Your task to perform on an android device: set default search engine in the chrome app Image 0: 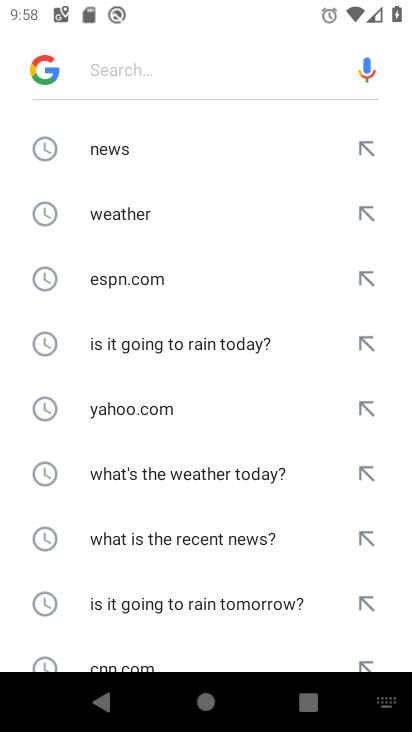
Step 0: press home button
Your task to perform on an android device: set default search engine in the chrome app Image 1: 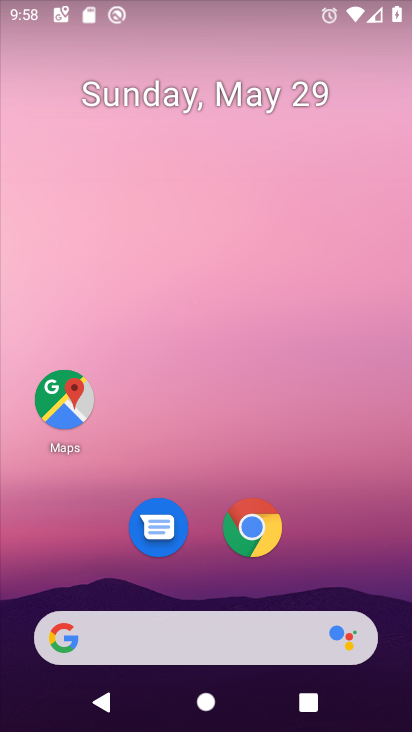
Step 1: click (241, 537)
Your task to perform on an android device: set default search engine in the chrome app Image 2: 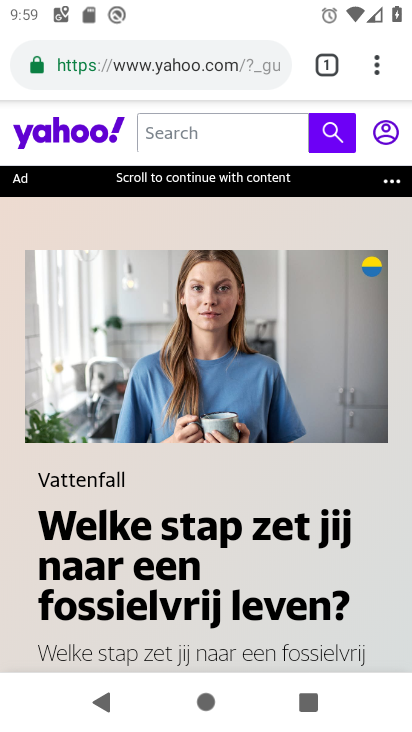
Step 2: click (376, 60)
Your task to perform on an android device: set default search engine in the chrome app Image 3: 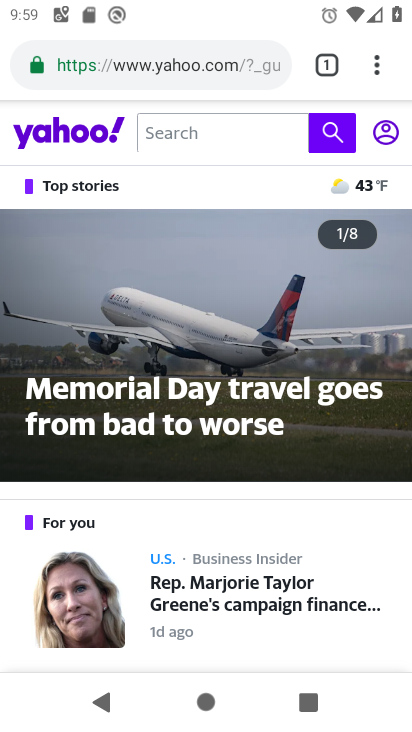
Step 3: click (381, 65)
Your task to perform on an android device: set default search engine in the chrome app Image 4: 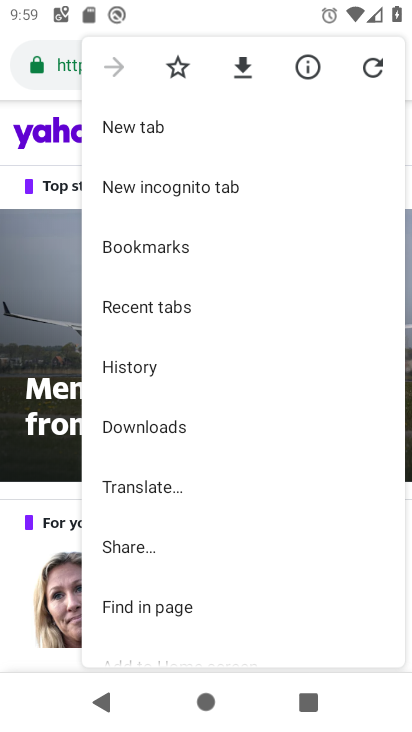
Step 4: click (196, 247)
Your task to perform on an android device: set default search engine in the chrome app Image 5: 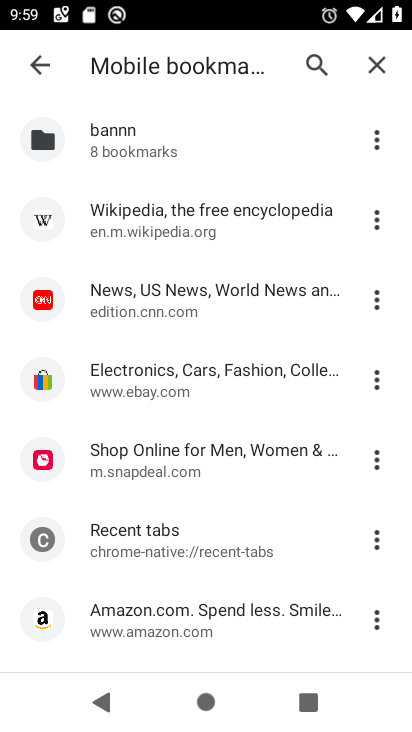
Step 5: click (48, 63)
Your task to perform on an android device: set default search engine in the chrome app Image 6: 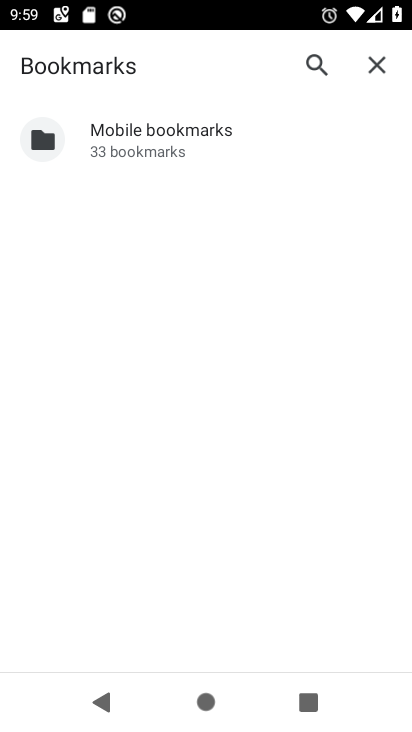
Step 6: click (379, 67)
Your task to perform on an android device: set default search engine in the chrome app Image 7: 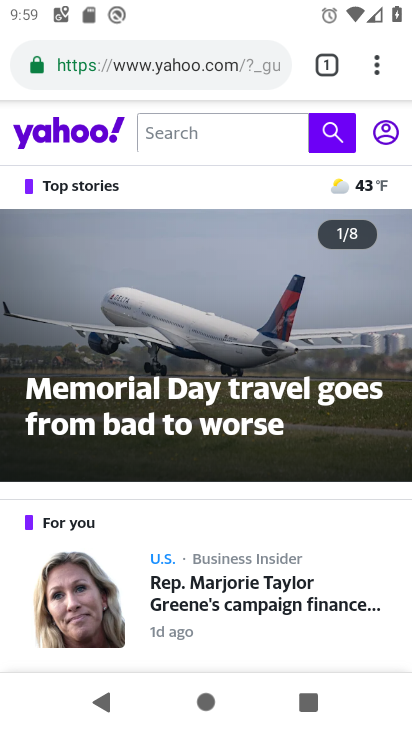
Step 7: click (377, 64)
Your task to perform on an android device: set default search engine in the chrome app Image 8: 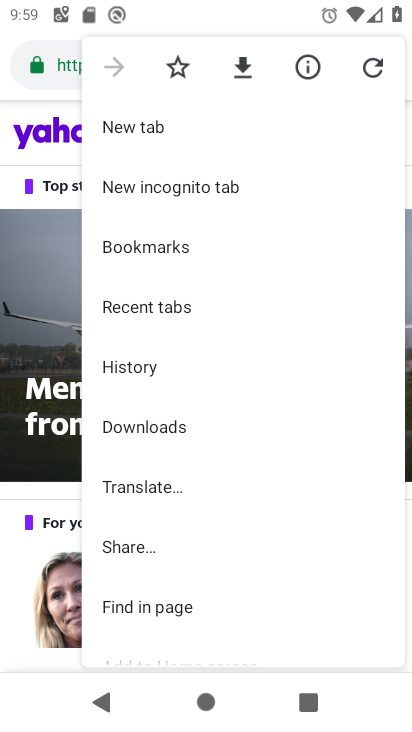
Step 8: drag from (251, 575) to (274, 85)
Your task to perform on an android device: set default search engine in the chrome app Image 9: 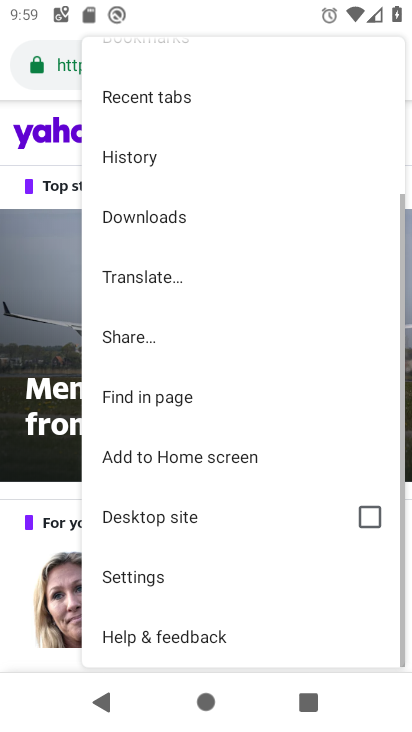
Step 9: click (222, 582)
Your task to perform on an android device: set default search engine in the chrome app Image 10: 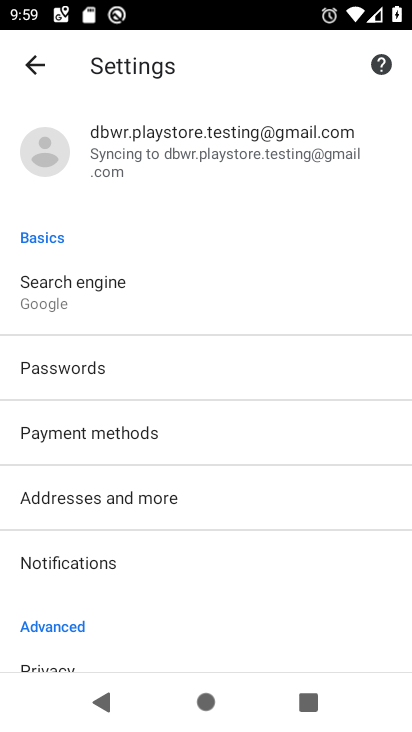
Step 10: click (121, 309)
Your task to perform on an android device: set default search engine in the chrome app Image 11: 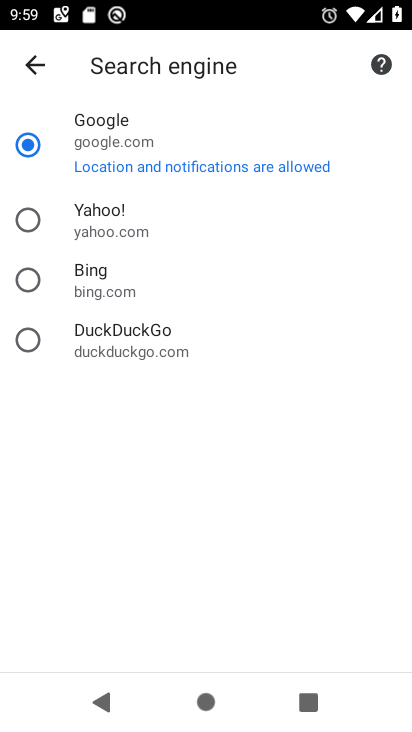
Step 11: click (37, 271)
Your task to perform on an android device: set default search engine in the chrome app Image 12: 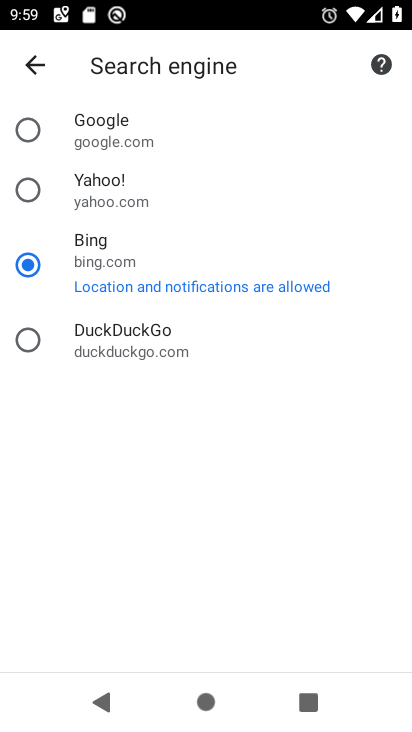
Step 12: task complete